Your task to perform on an android device: change the clock display to analog Image 0: 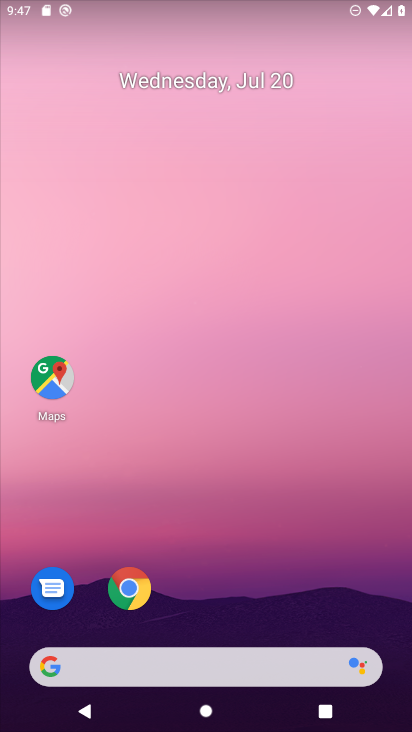
Step 0: drag from (238, 612) to (301, 9)
Your task to perform on an android device: change the clock display to analog Image 1: 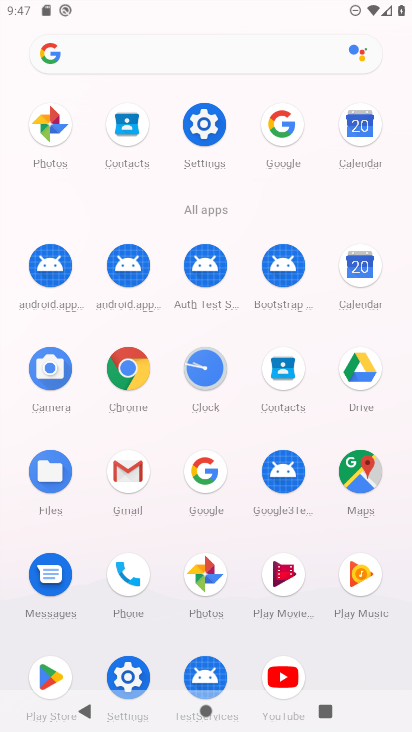
Step 1: click (210, 370)
Your task to perform on an android device: change the clock display to analog Image 2: 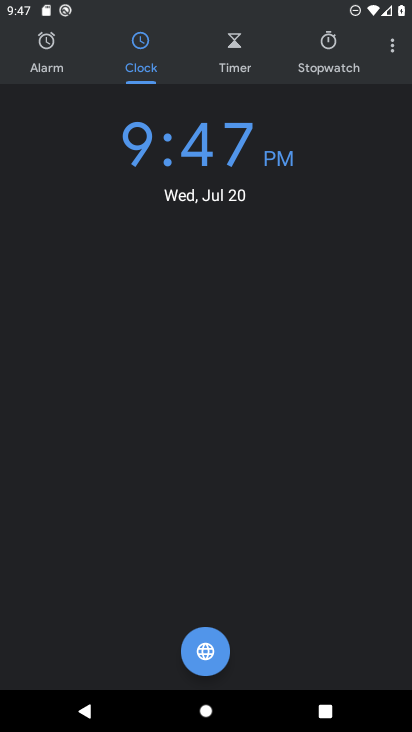
Step 2: click (392, 44)
Your task to perform on an android device: change the clock display to analog Image 3: 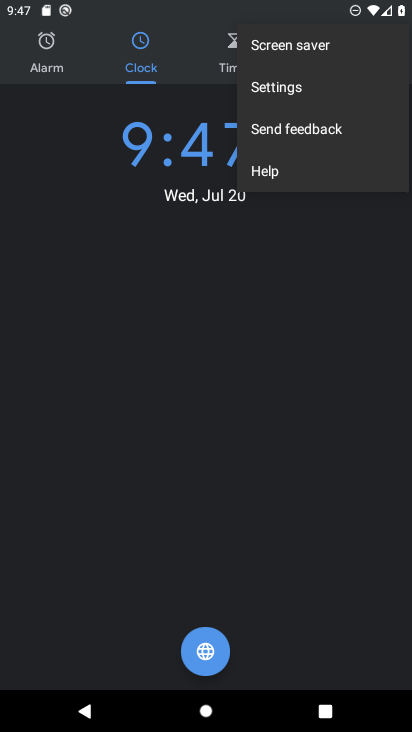
Step 3: click (292, 92)
Your task to perform on an android device: change the clock display to analog Image 4: 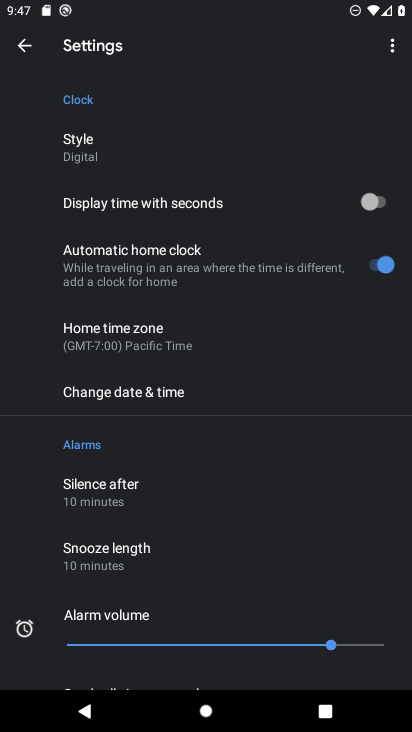
Step 4: click (104, 141)
Your task to perform on an android device: change the clock display to analog Image 5: 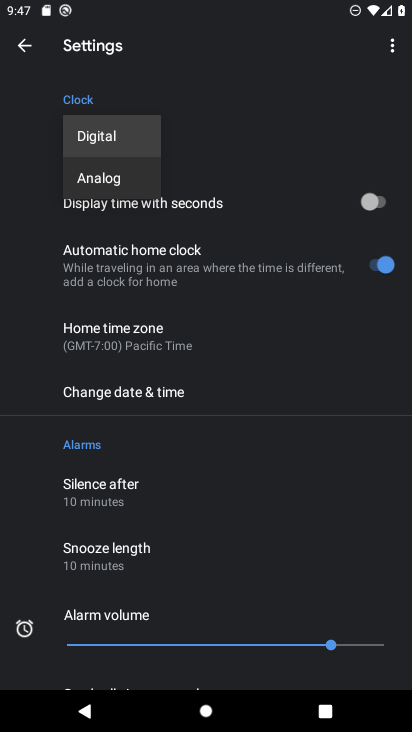
Step 5: click (120, 173)
Your task to perform on an android device: change the clock display to analog Image 6: 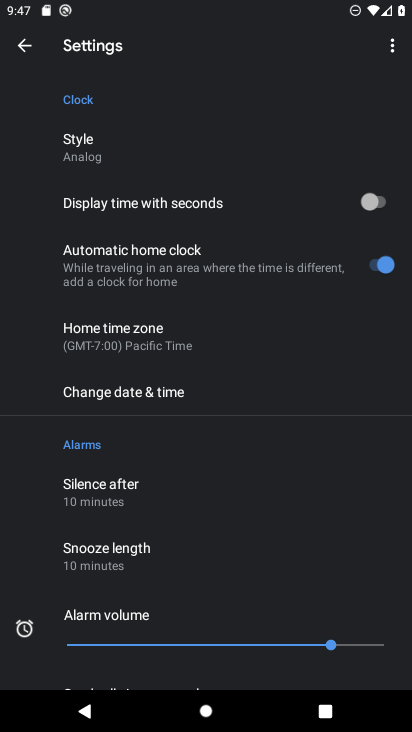
Step 6: task complete